Your task to perform on an android device: open app "Microsoft Authenticator" Image 0: 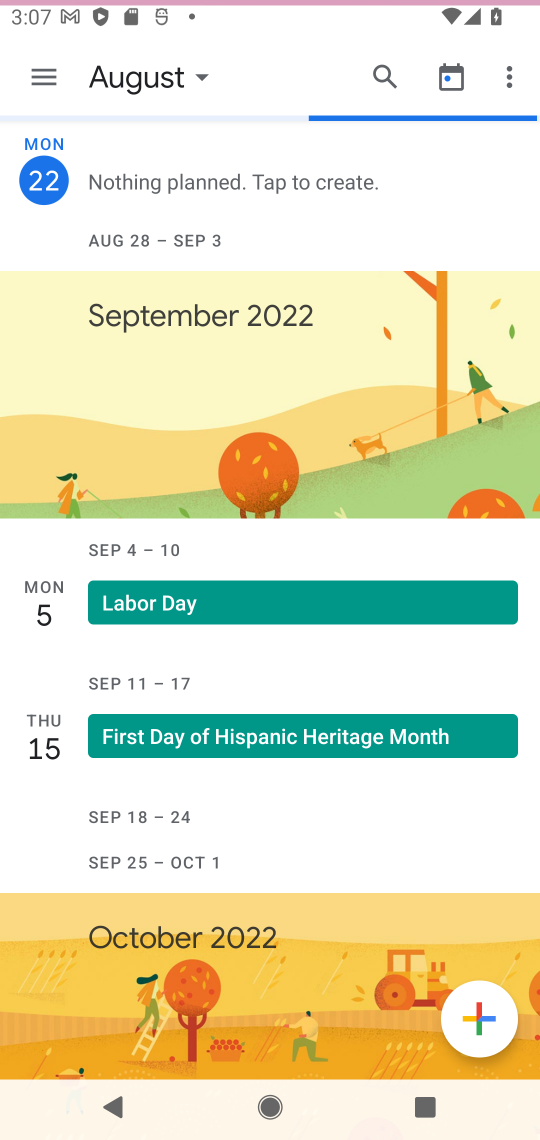
Step 0: press home button
Your task to perform on an android device: open app "Microsoft Authenticator" Image 1: 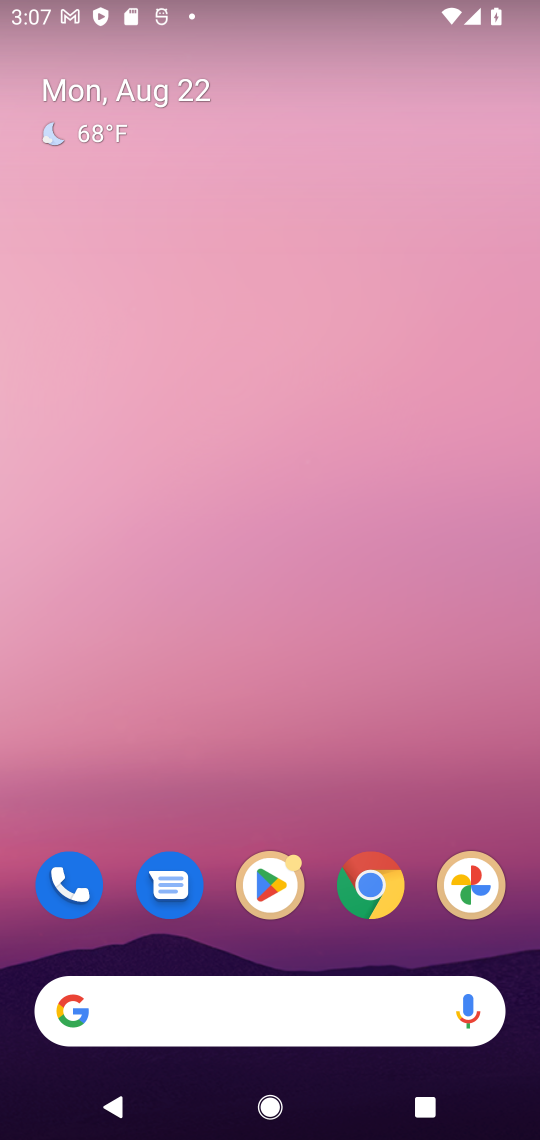
Step 1: click (260, 879)
Your task to perform on an android device: open app "Microsoft Authenticator" Image 2: 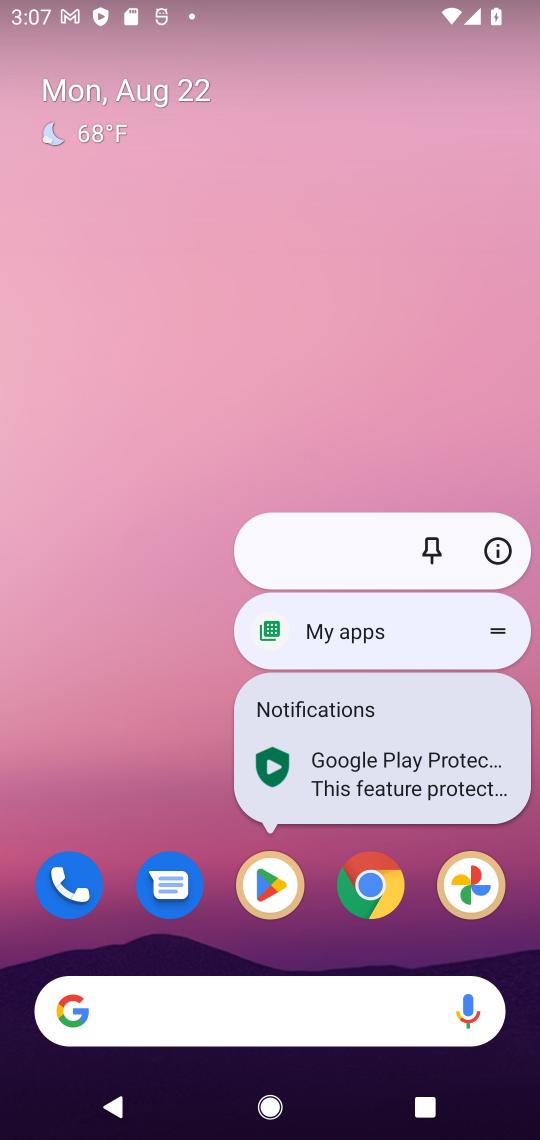
Step 2: click (262, 885)
Your task to perform on an android device: open app "Microsoft Authenticator" Image 3: 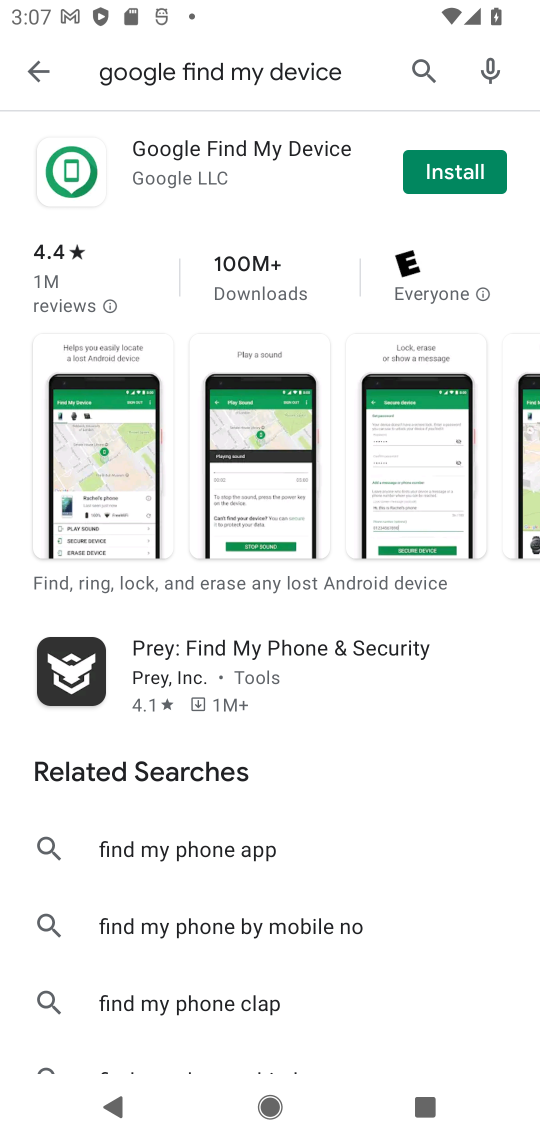
Step 3: click (431, 69)
Your task to perform on an android device: open app "Microsoft Authenticator" Image 4: 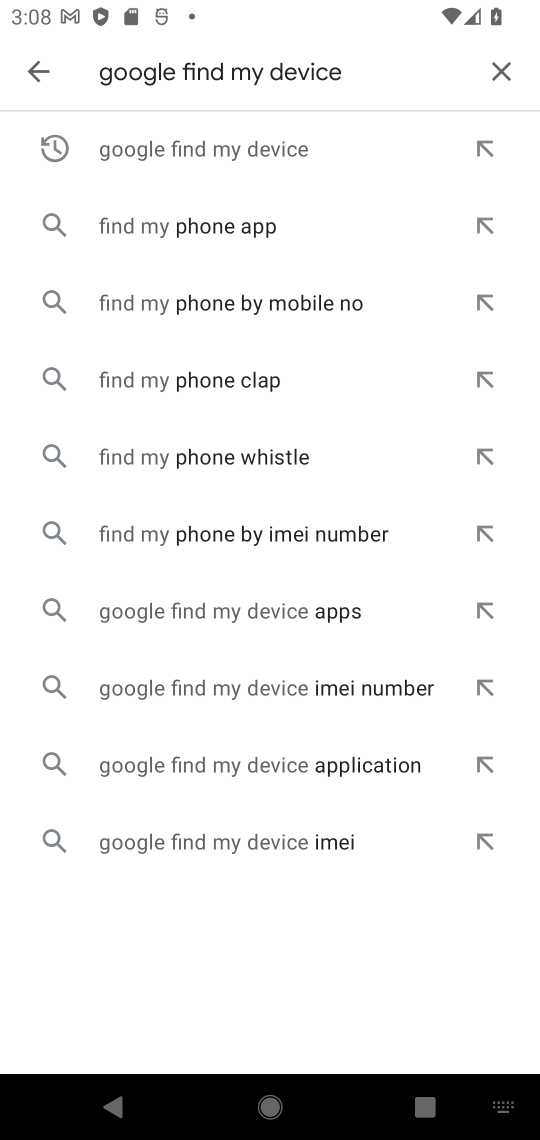
Step 4: click (500, 62)
Your task to perform on an android device: open app "Microsoft Authenticator" Image 5: 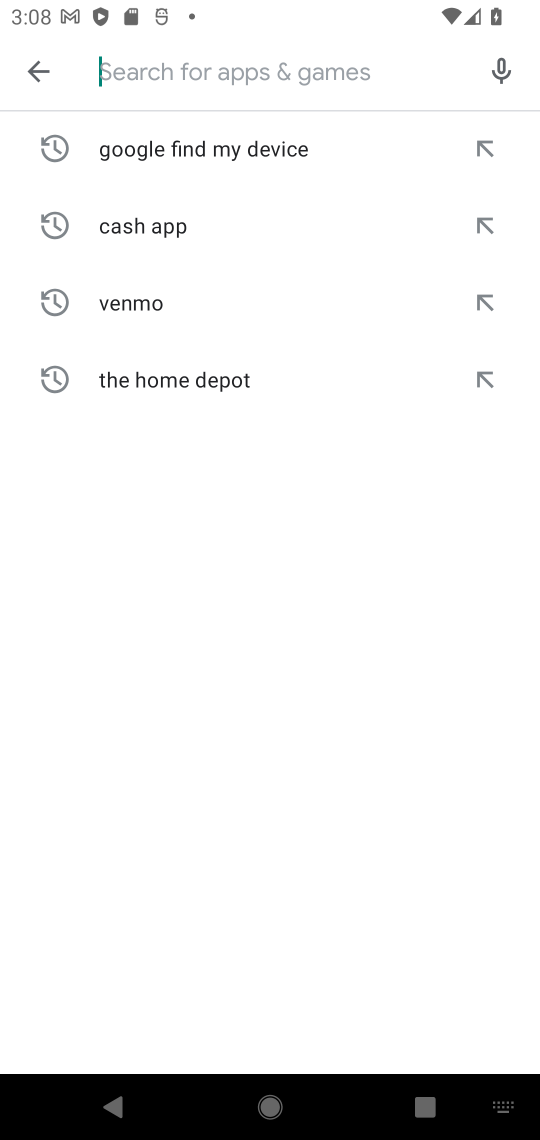
Step 5: type "Microsoft Authenticator"
Your task to perform on an android device: open app "Microsoft Authenticator" Image 6: 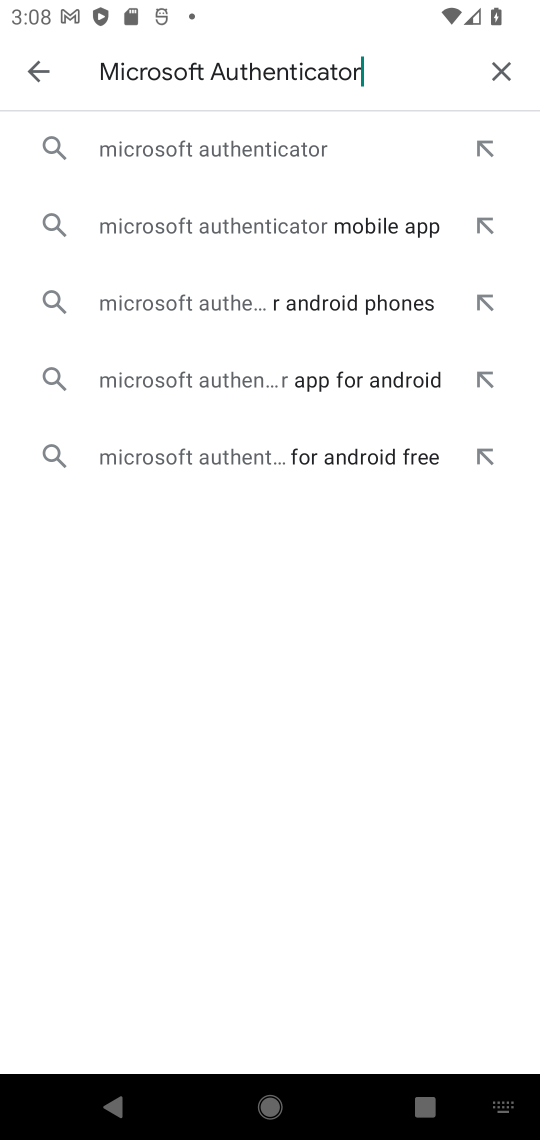
Step 6: click (295, 141)
Your task to perform on an android device: open app "Microsoft Authenticator" Image 7: 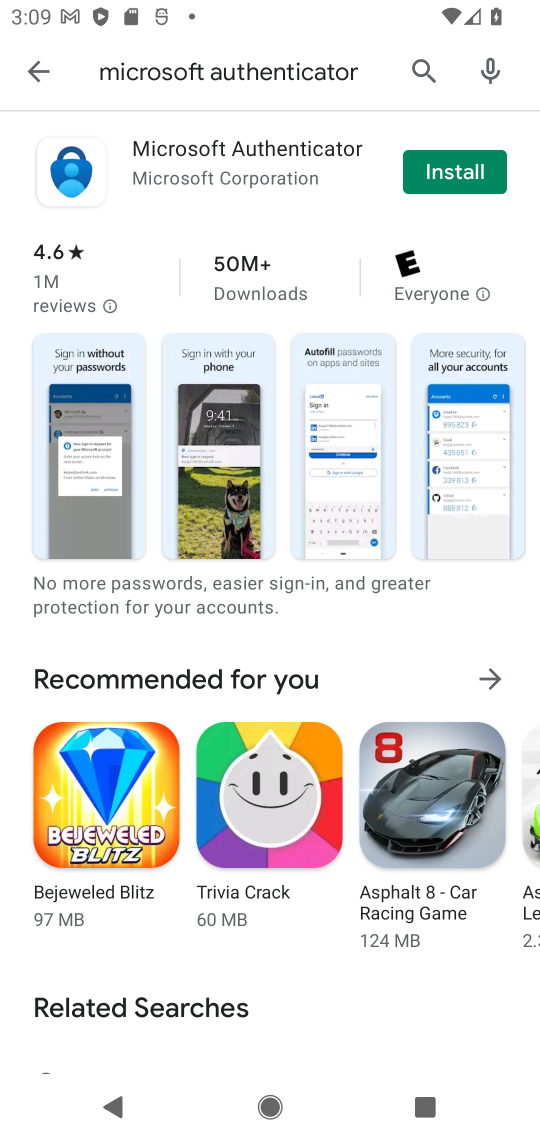
Step 7: task complete